Your task to perform on an android device: find snoozed emails in the gmail app Image 0: 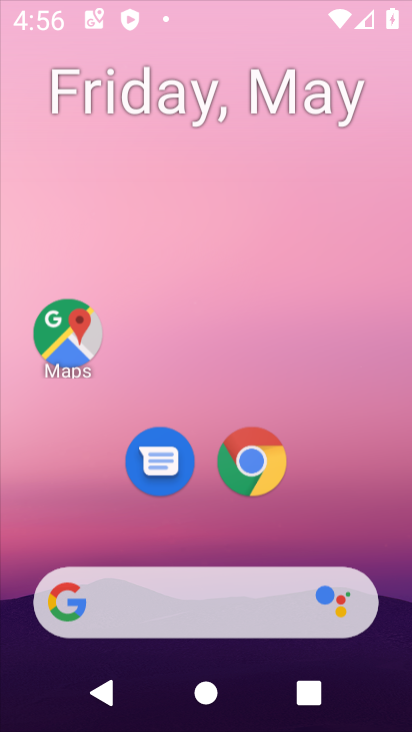
Step 0: click (367, 163)
Your task to perform on an android device: find snoozed emails in the gmail app Image 1: 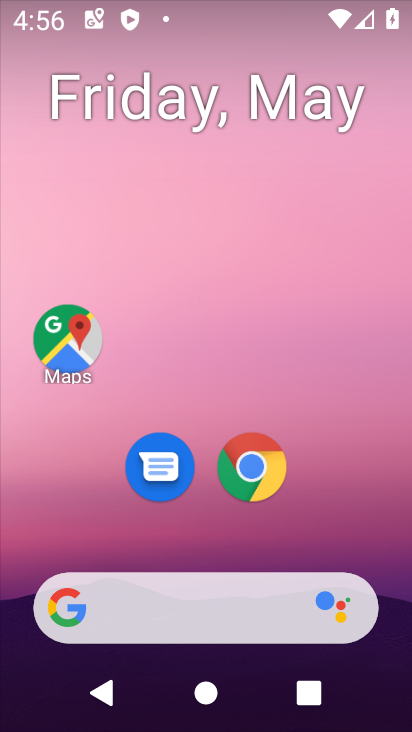
Step 1: drag from (297, 518) to (291, 11)
Your task to perform on an android device: find snoozed emails in the gmail app Image 2: 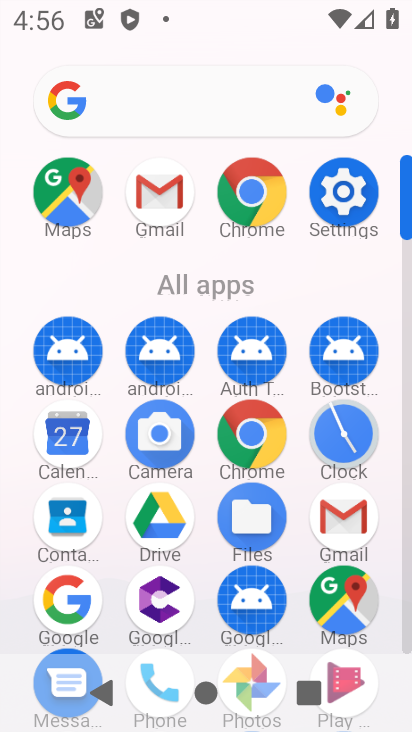
Step 2: click (152, 196)
Your task to perform on an android device: find snoozed emails in the gmail app Image 3: 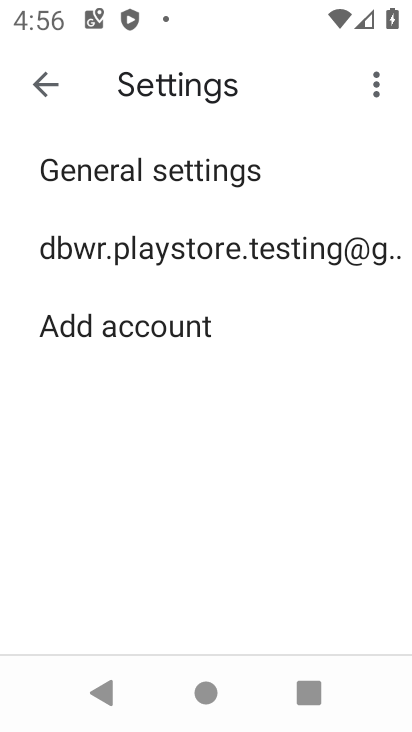
Step 3: click (37, 89)
Your task to perform on an android device: find snoozed emails in the gmail app Image 4: 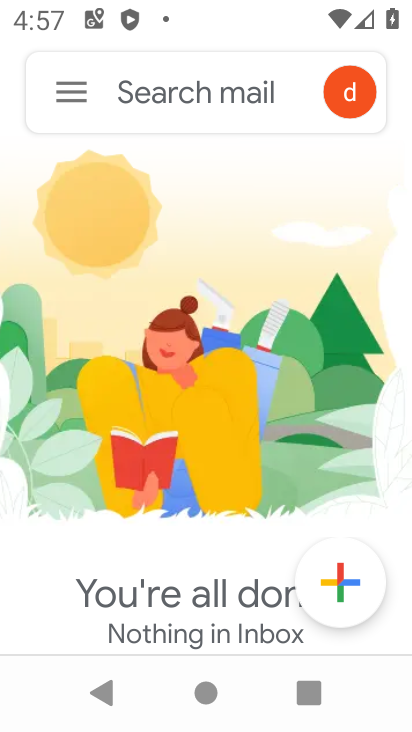
Step 4: click (68, 90)
Your task to perform on an android device: find snoozed emails in the gmail app Image 5: 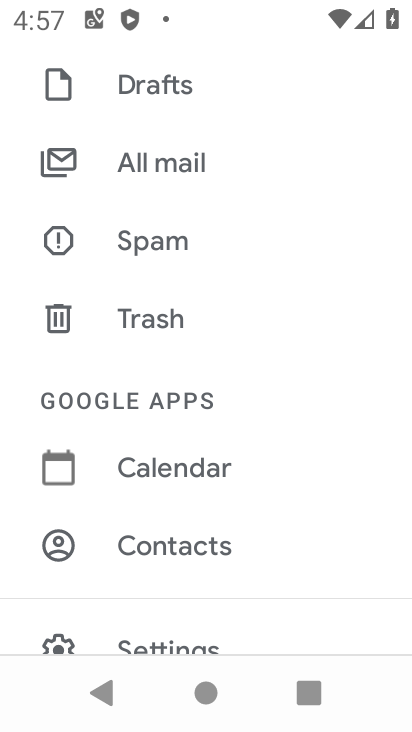
Step 5: drag from (267, 216) to (215, 611)
Your task to perform on an android device: find snoozed emails in the gmail app Image 6: 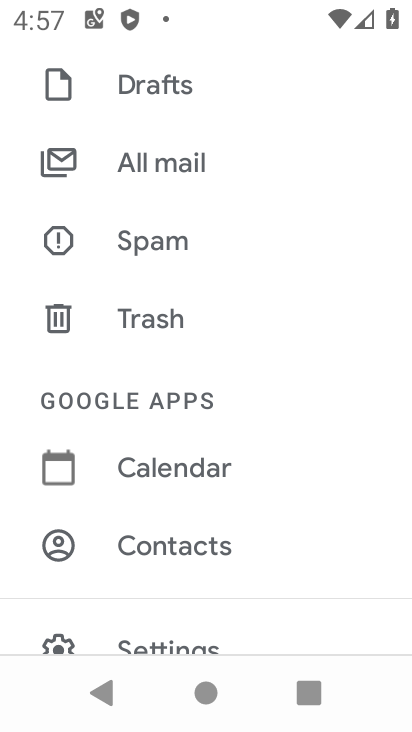
Step 6: drag from (204, 169) to (219, 571)
Your task to perform on an android device: find snoozed emails in the gmail app Image 7: 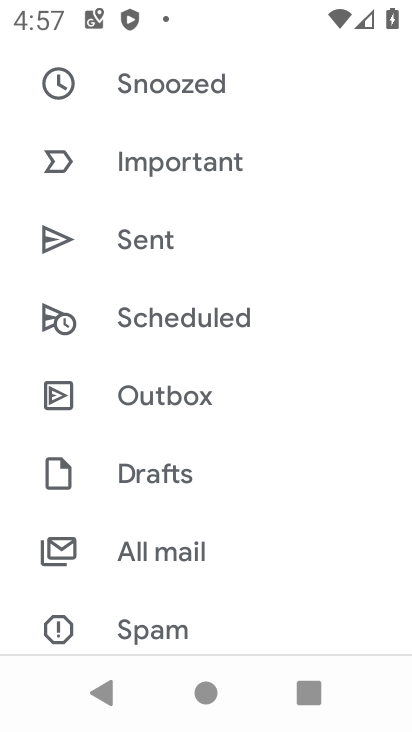
Step 7: click (204, 86)
Your task to perform on an android device: find snoozed emails in the gmail app Image 8: 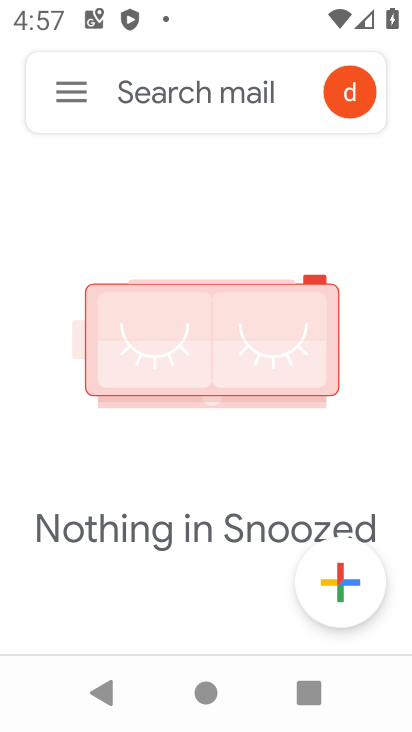
Step 8: task complete